Your task to perform on an android device: add a contact in the contacts app Image 0: 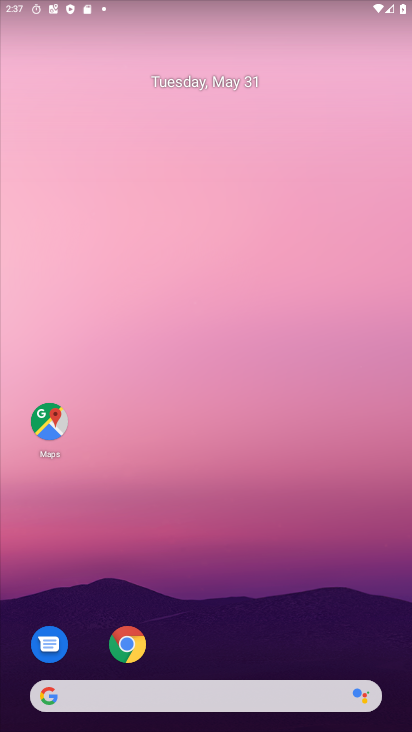
Step 0: drag from (399, 706) to (296, 54)
Your task to perform on an android device: add a contact in the contacts app Image 1: 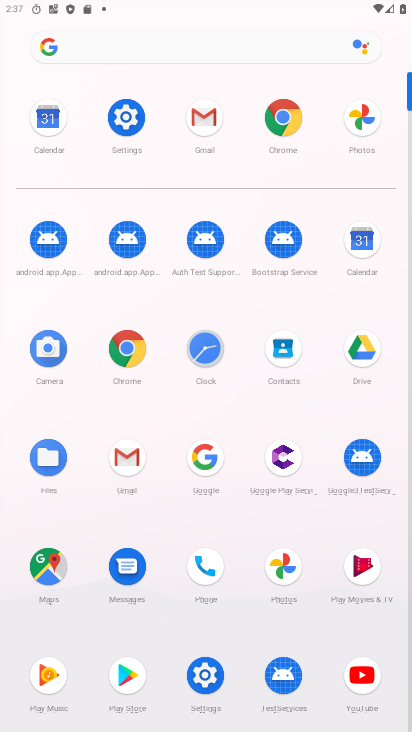
Step 1: click (283, 346)
Your task to perform on an android device: add a contact in the contacts app Image 2: 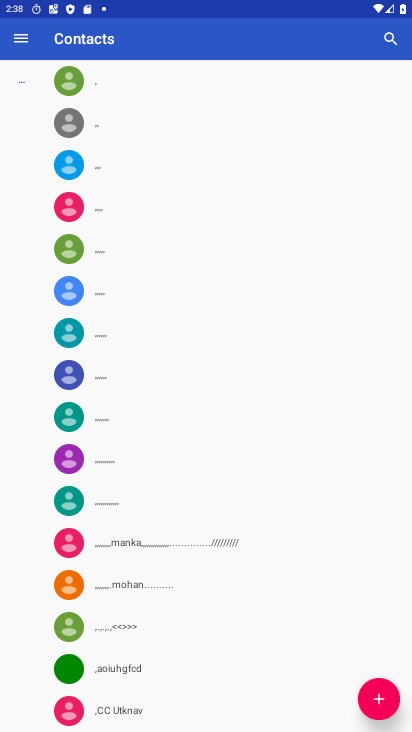
Step 2: click (381, 687)
Your task to perform on an android device: add a contact in the contacts app Image 3: 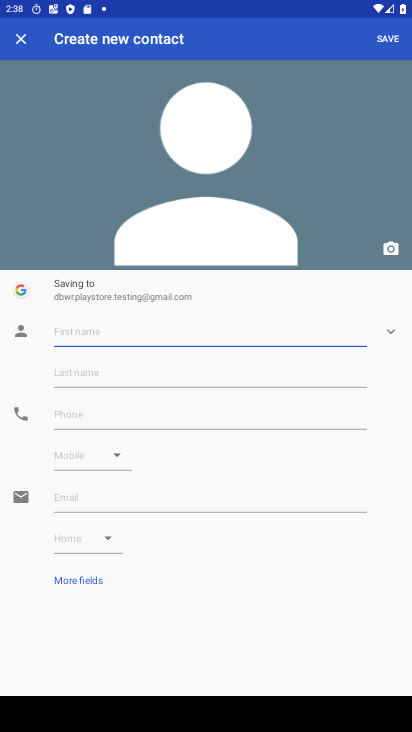
Step 3: type "dfchhjhghcy"
Your task to perform on an android device: add a contact in the contacts app Image 4: 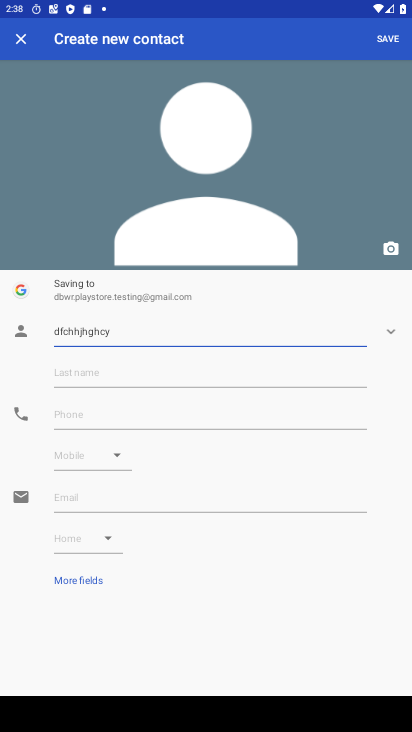
Step 4: click (93, 360)
Your task to perform on an android device: add a contact in the contacts app Image 5: 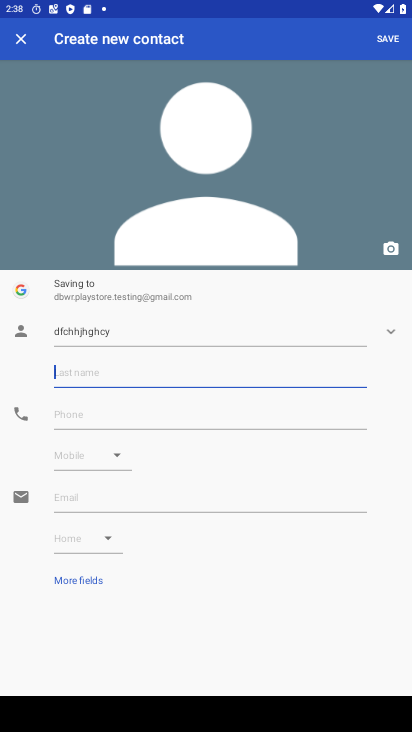
Step 5: type "yugvuvv"
Your task to perform on an android device: add a contact in the contacts app Image 6: 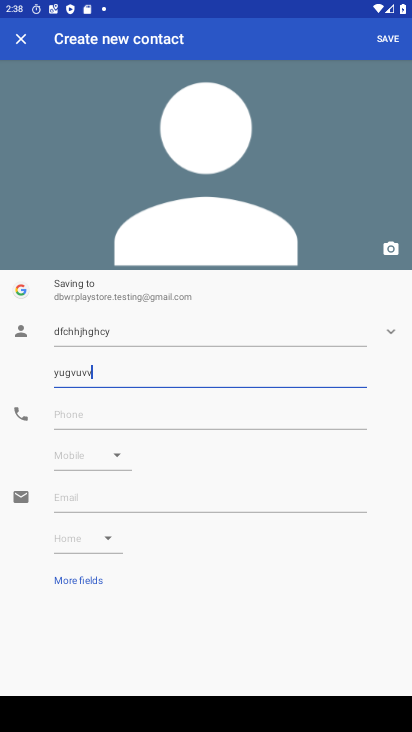
Step 6: click (113, 419)
Your task to perform on an android device: add a contact in the contacts app Image 7: 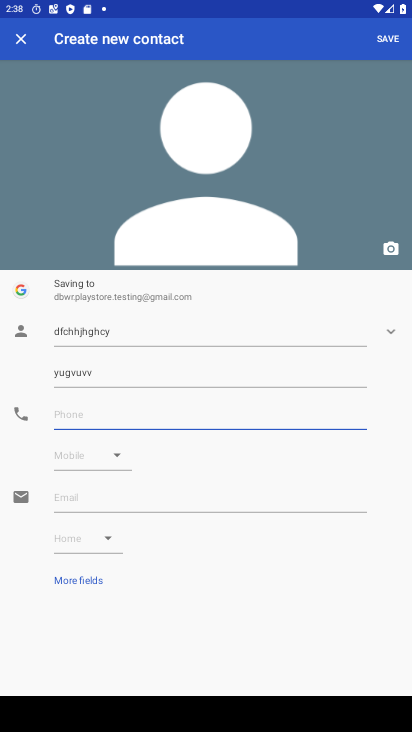
Step 7: type "4545444498777"
Your task to perform on an android device: add a contact in the contacts app Image 8: 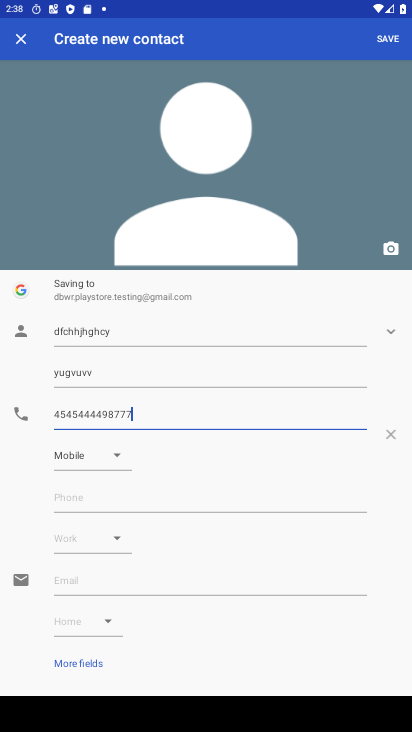
Step 8: click (382, 37)
Your task to perform on an android device: add a contact in the contacts app Image 9: 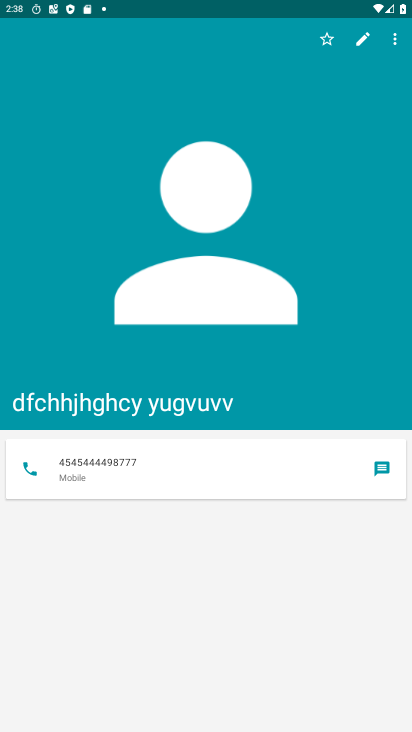
Step 9: task complete